Your task to perform on an android device: see tabs open on other devices in the chrome app Image 0: 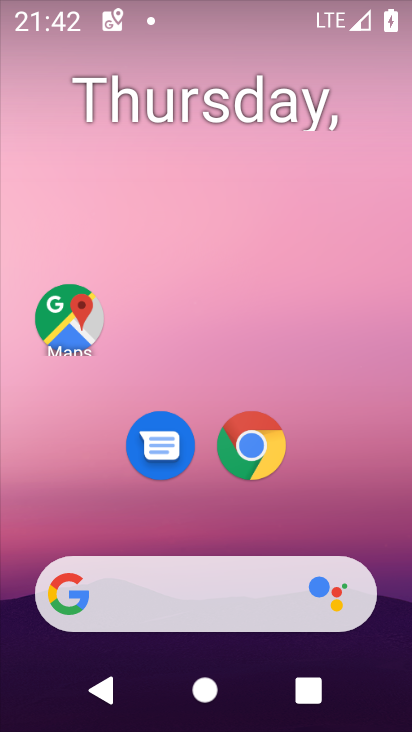
Step 0: drag from (190, 516) to (178, 112)
Your task to perform on an android device: see tabs open on other devices in the chrome app Image 1: 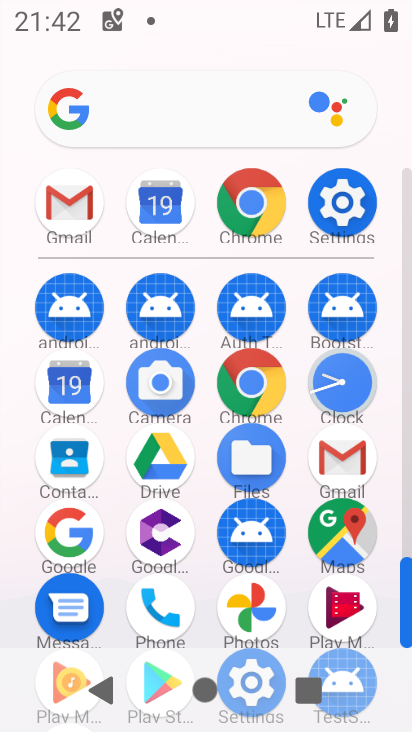
Step 1: click (261, 380)
Your task to perform on an android device: see tabs open on other devices in the chrome app Image 2: 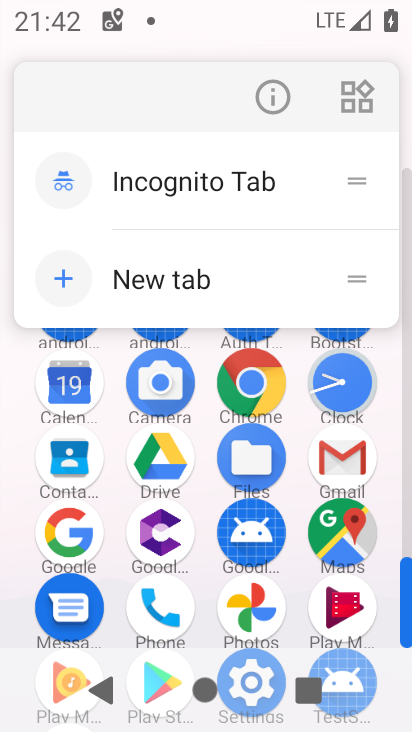
Step 2: click (262, 108)
Your task to perform on an android device: see tabs open on other devices in the chrome app Image 3: 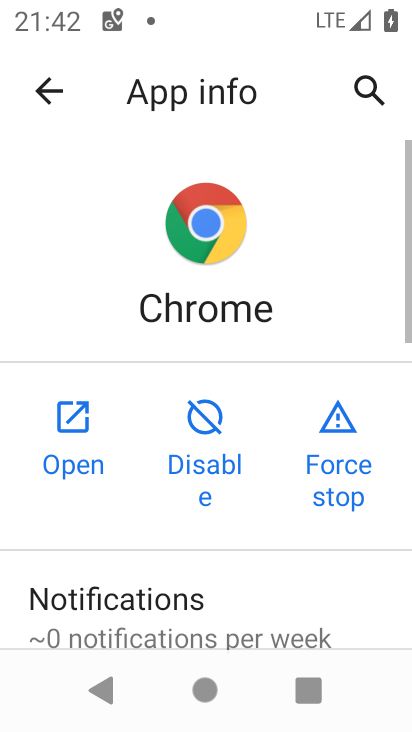
Step 3: click (77, 434)
Your task to perform on an android device: see tabs open on other devices in the chrome app Image 4: 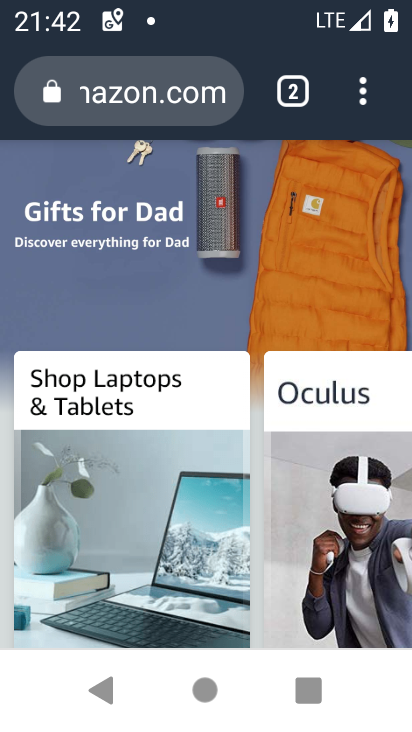
Step 4: drag from (253, 574) to (225, 212)
Your task to perform on an android device: see tabs open on other devices in the chrome app Image 5: 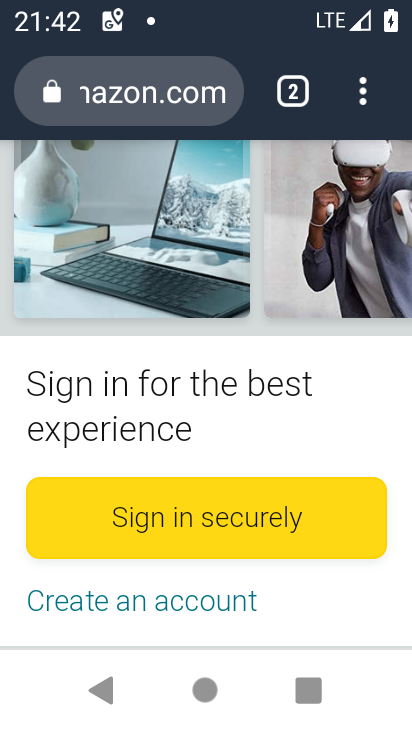
Step 5: drag from (255, 175) to (244, 589)
Your task to perform on an android device: see tabs open on other devices in the chrome app Image 6: 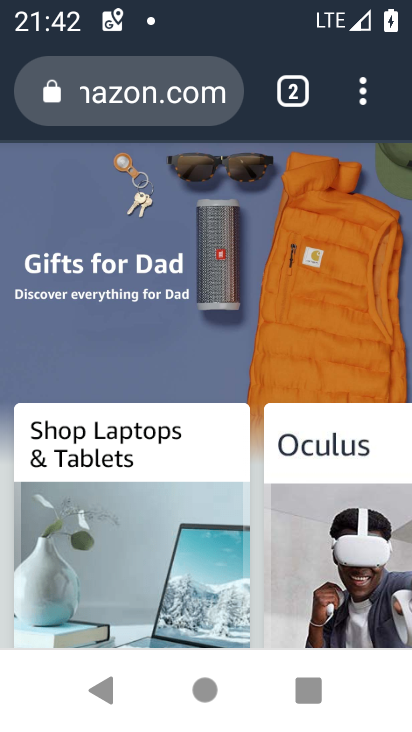
Step 6: click (367, 103)
Your task to perform on an android device: see tabs open on other devices in the chrome app Image 7: 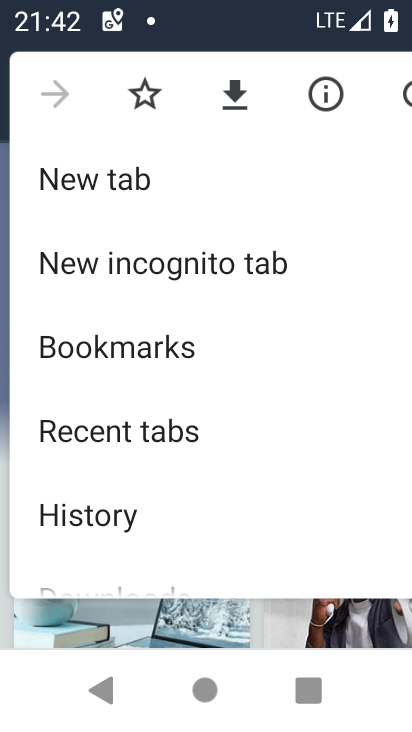
Step 7: drag from (189, 495) to (295, 57)
Your task to perform on an android device: see tabs open on other devices in the chrome app Image 8: 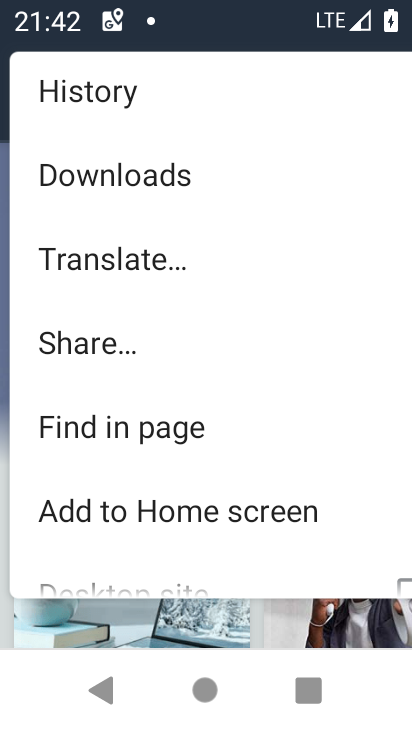
Step 8: drag from (170, 500) to (248, 92)
Your task to perform on an android device: see tabs open on other devices in the chrome app Image 9: 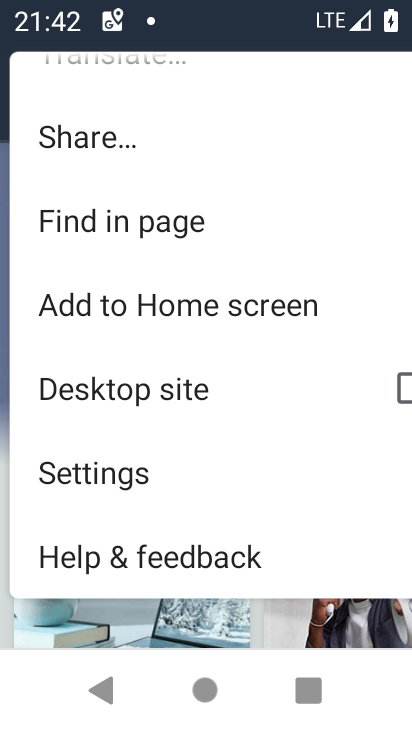
Step 9: drag from (134, 184) to (224, 648)
Your task to perform on an android device: see tabs open on other devices in the chrome app Image 10: 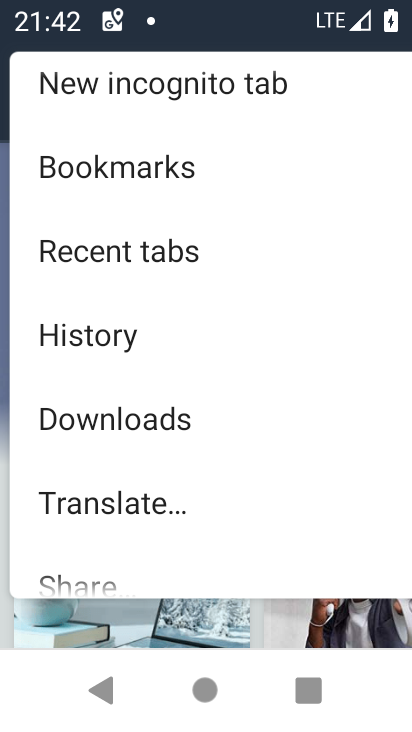
Step 10: click (102, 274)
Your task to perform on an android device: see tabs open on other devices in the chrome app Image 11: 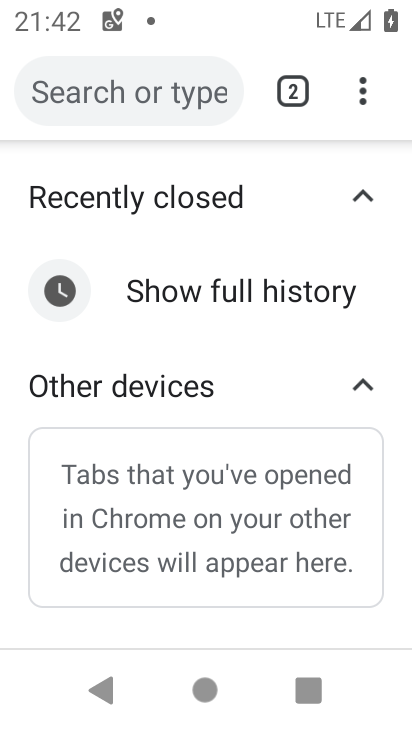
Step 11: task complete